Your task to perform on an android device: show emergency info Image 0: 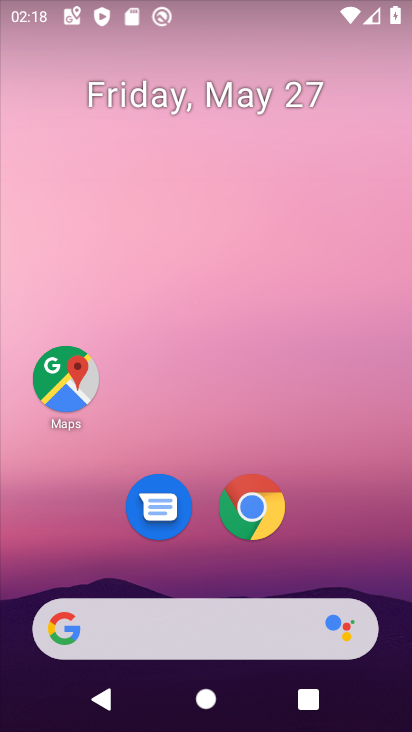
Step 0: drag from (210, 567) to (274, 161)
Your task to perform on an android device: show emergency info Image 1: 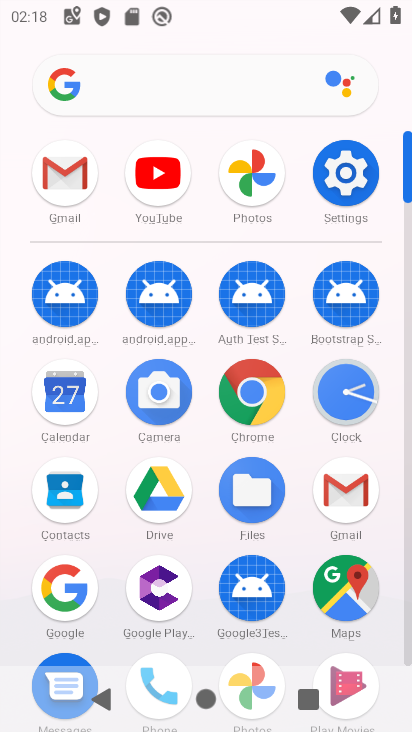
Step 1: click (337, 173)
Your task to perform on an android device: show emergency info Image 2: 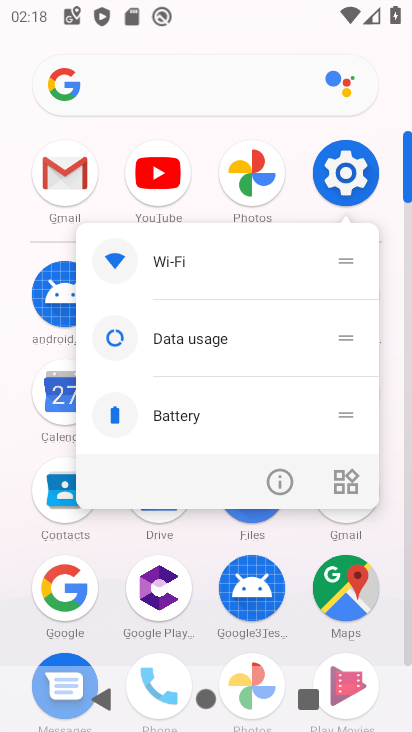
Step 2: click (275, 471)
Your task to perform on an android device: show emergency info Image 3: 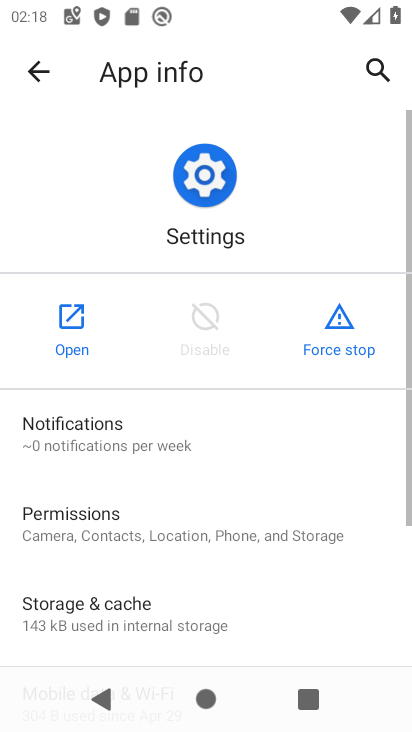
Step 3: click (84, 300)
Your task to perform on an android device: show emergency info Image 4: 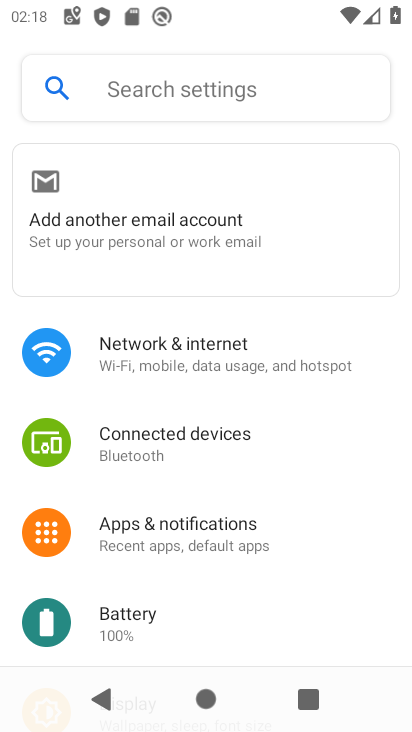
Step 4: drag from (180, 578) to (246, 7)
Your task to perform on an android device: show emergency info Image 5: 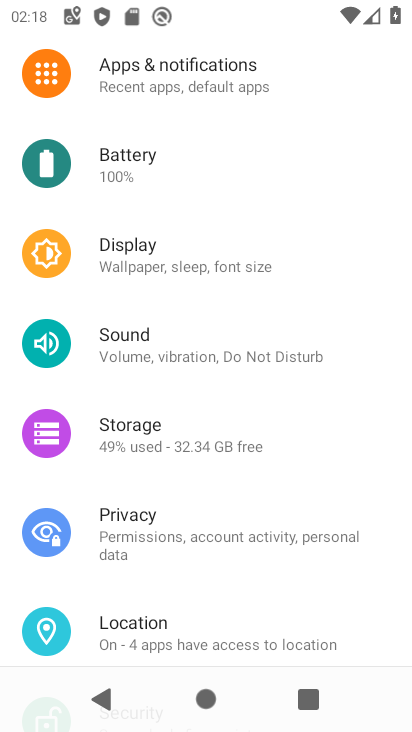
Step 5: drag from (133, 595) to (236, 28)
Your task to perform on an android device: show emergency info Image 6: 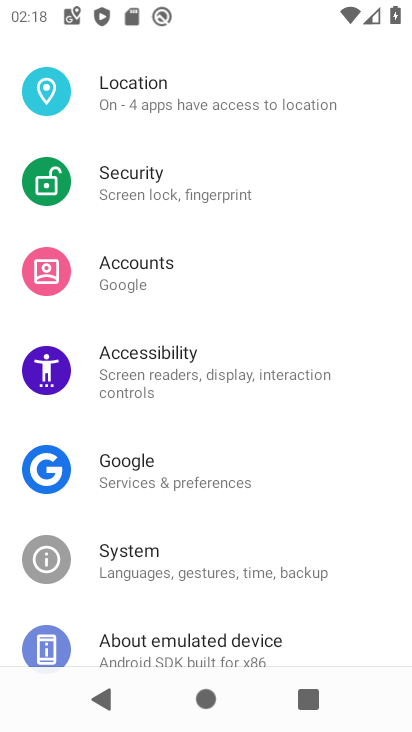
Step 6: drag from (206, 605) to (251, 84)
Your task to perform on an android device: show emergency info Image 7: 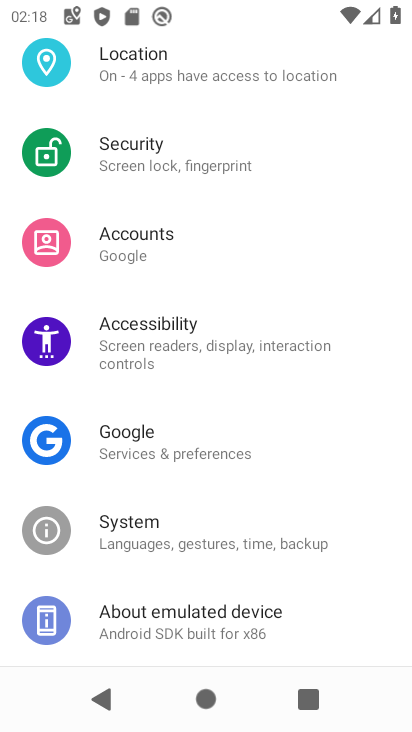
Step 7: click (189, 618)
Your task to perform on an android device: show emergency info Image 8: 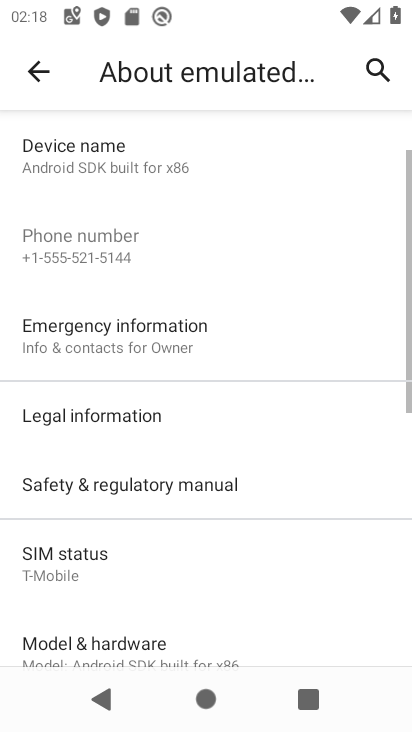
Step 8: drag from (189, 489) to (212, 312)
Your task to perform on an android device: show emergency info Image 9: 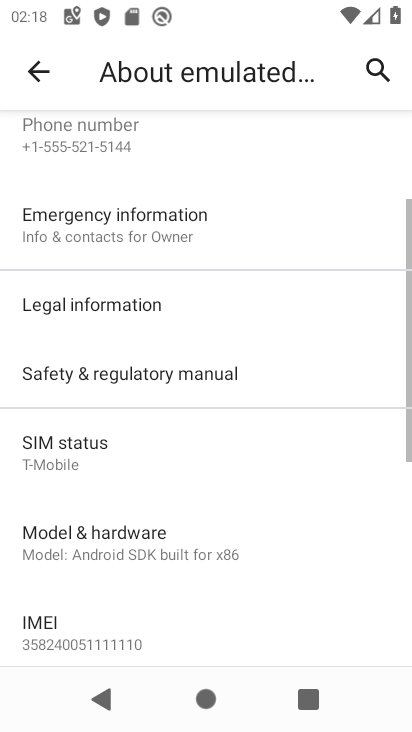
Step 9: click (128, 222)
Your task to perform on an android device: show emergency info Image 10: 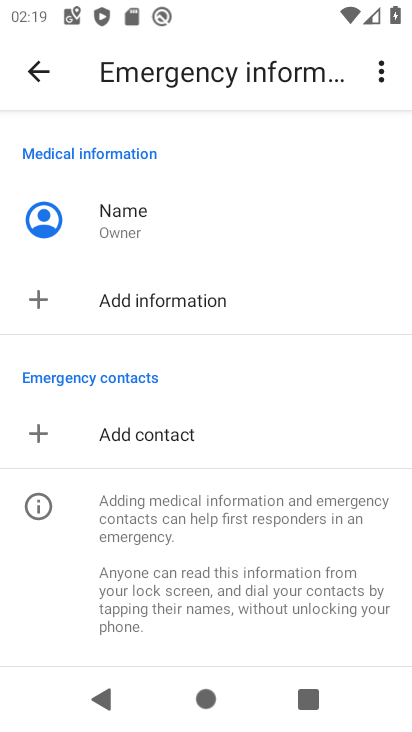
Step 10: task complete